Your task to perform on an android device: What's the news in Nepal? Image 0: 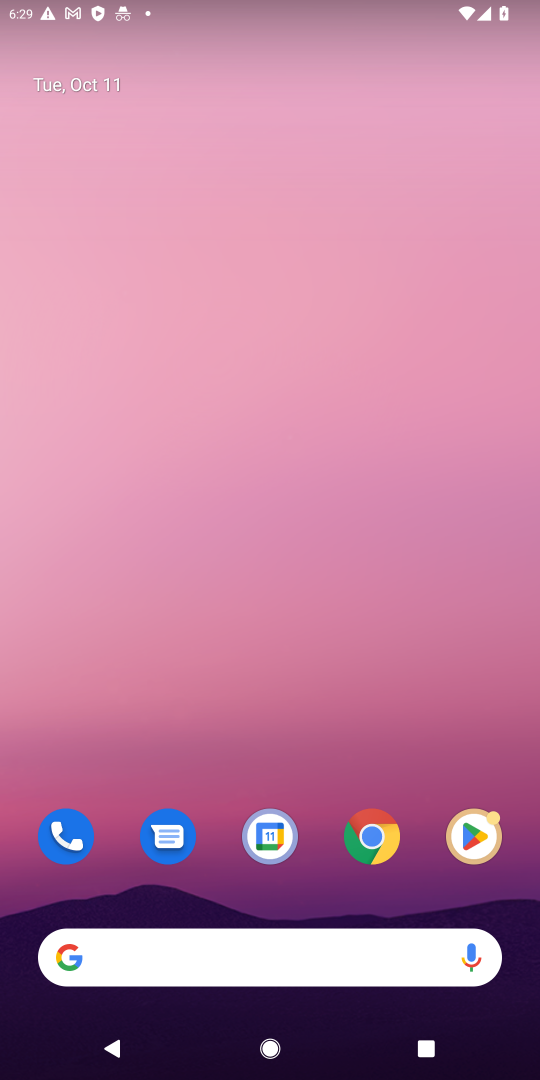
Step 0: click (368, 831)
Your task to perform on an android device: What's the news in Nepal? Image 1: 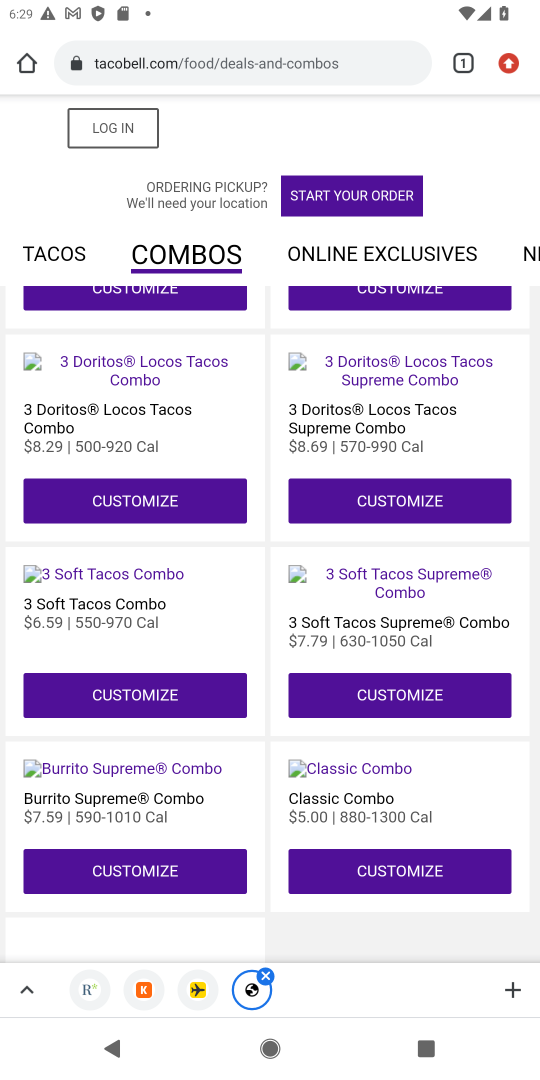
Step 1: click (346, 47)
Your task to perform on an android device: What's the news in Nepal? Image 2: 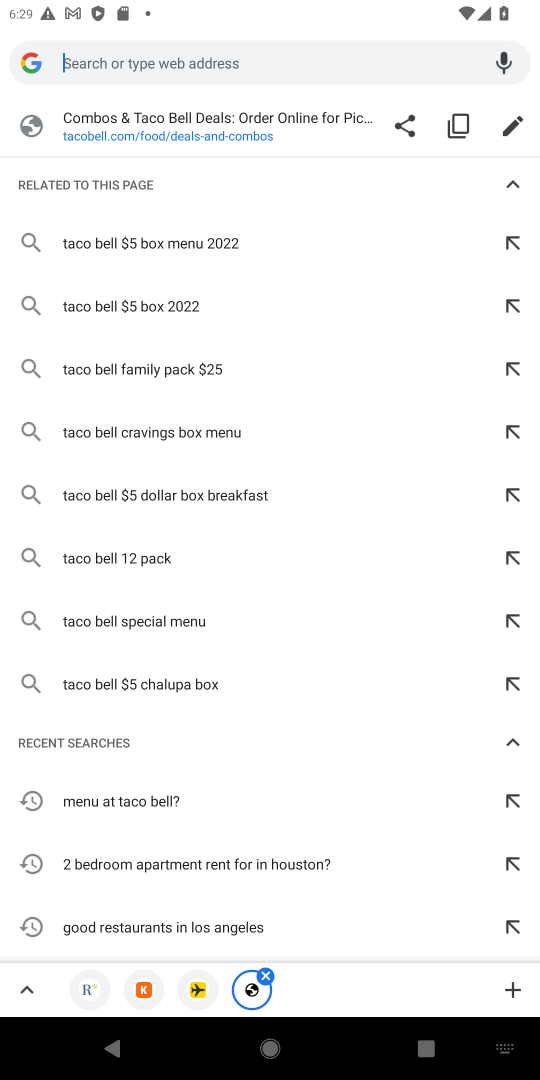
Step 2: type "news in nepal"
Your task to perform on an android device: What's the news in Nepal? Image 3: 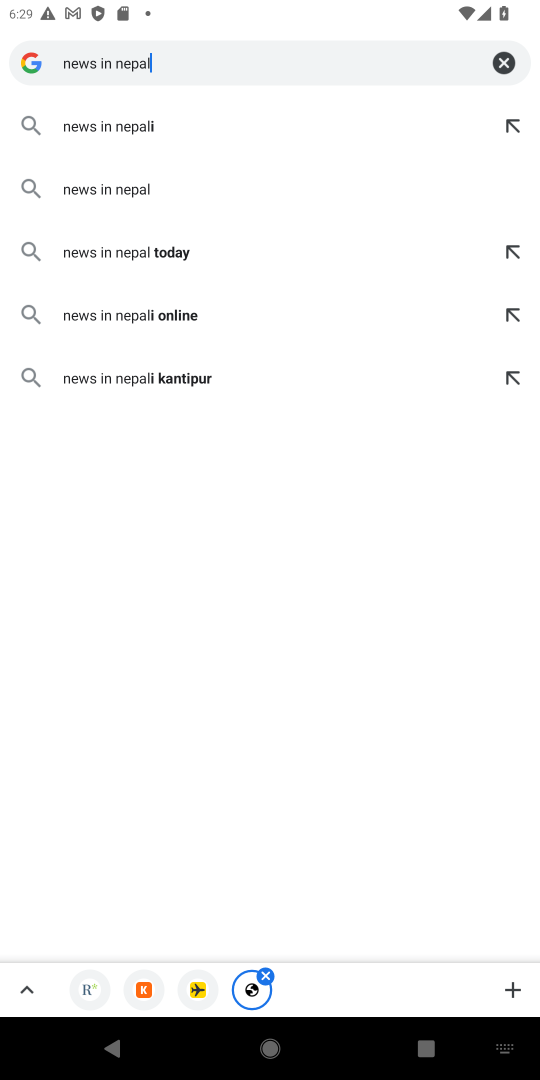
Step 3: click (104, 114)
Your task to perform on an android device: What's the news in Nepal? Image 4: 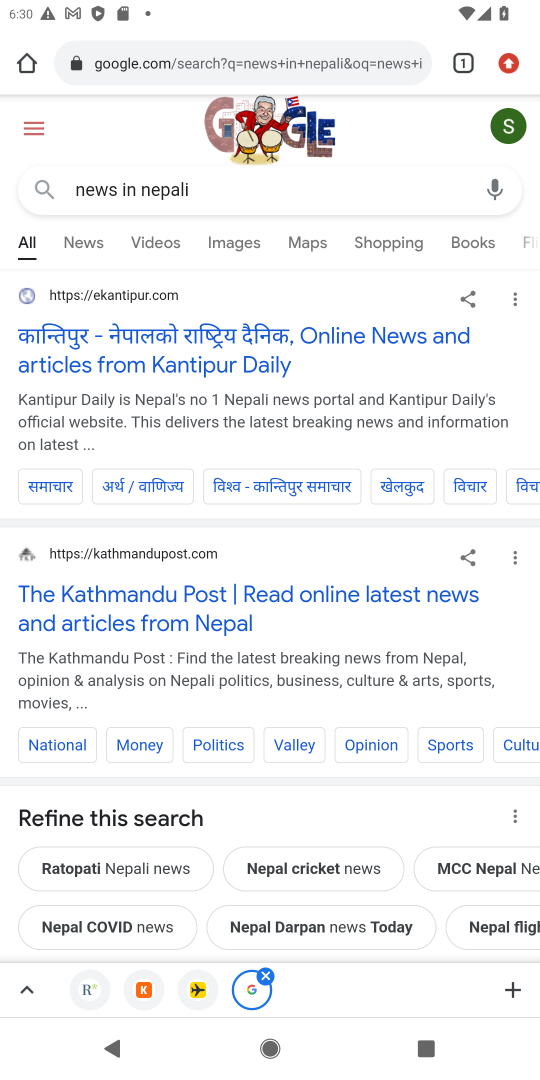
Step 4: click (152, 599)
Your task to perform on an android device: What's the news in Nepal? Image 5: 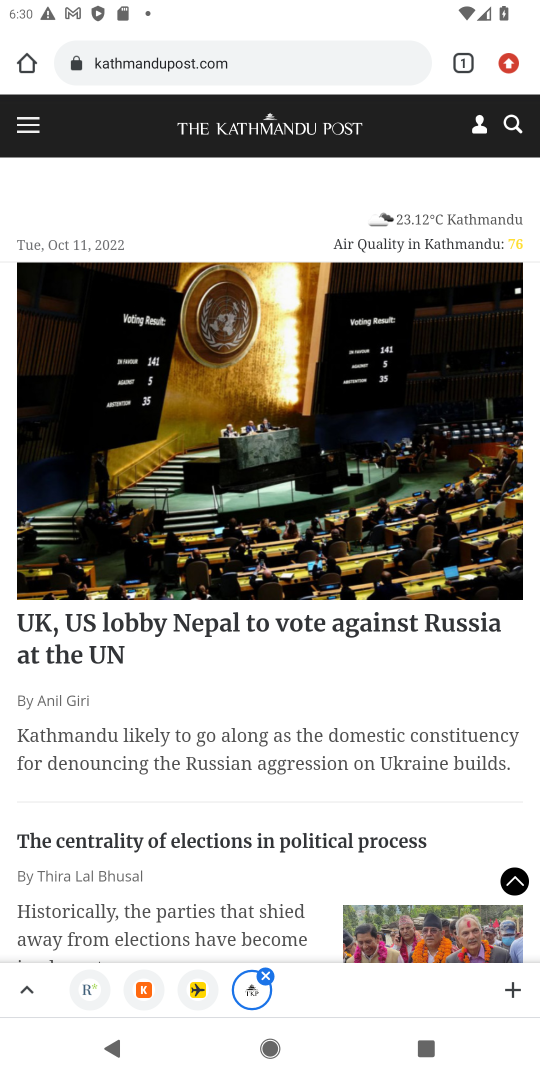
Step 5: click (140, 622)
Your task to perform on an android device: What's the news in Nepal? Image 6: 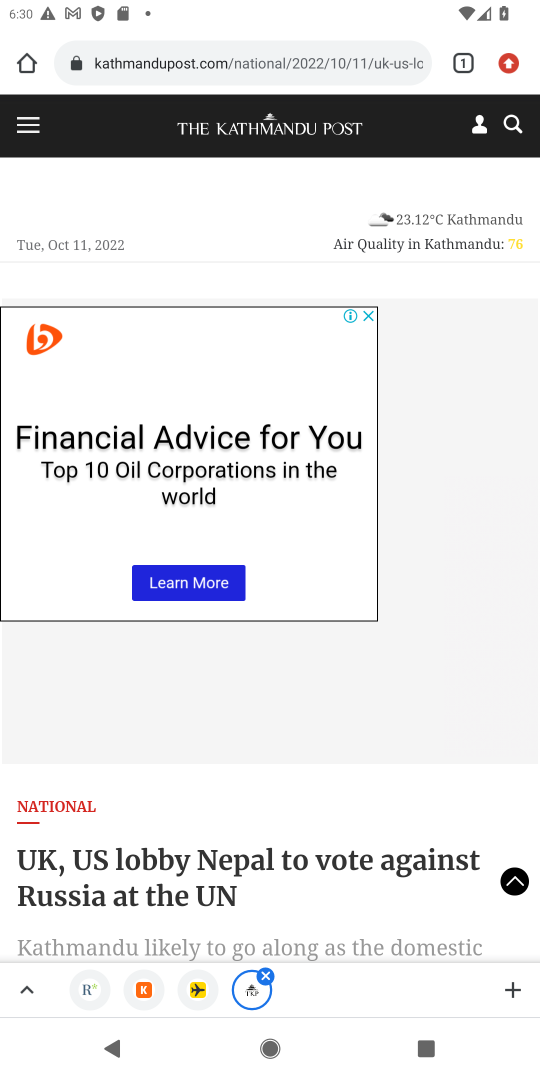
Step 6: task complete